Your task to perform on an android device: Open internet settings Image 0: 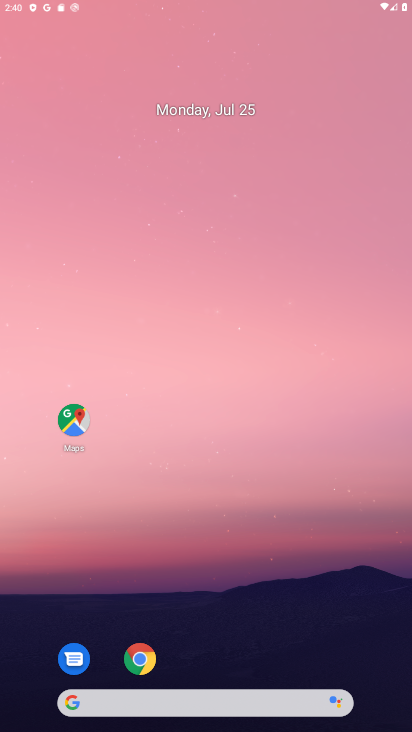
Step 0: drag from (225, 692) to (212, 115)
Your task to perform on an android device: Open internet settings Image 1: 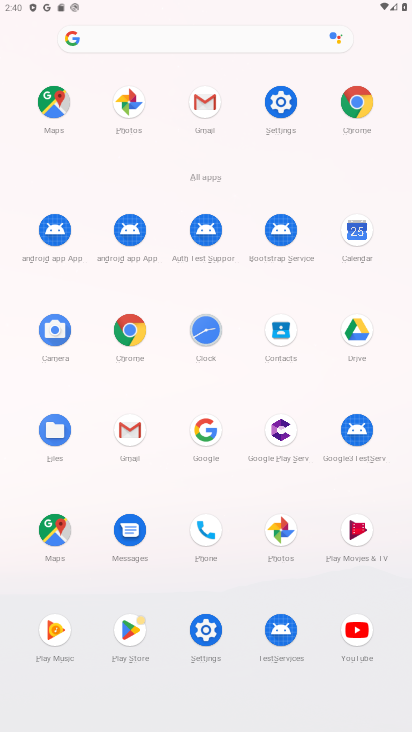
Step 1: click (282, 117)
Your task to perform on an android device: Open internet settings Image 2: 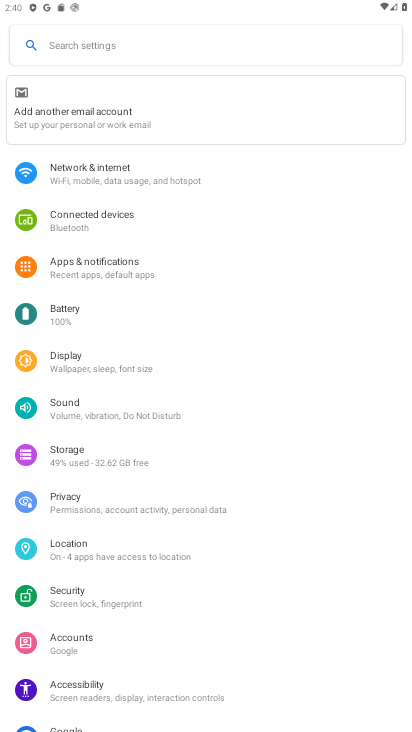
Step 2: click (109, 161)
Your task to perform on an android device: Open internet settings Image 3: 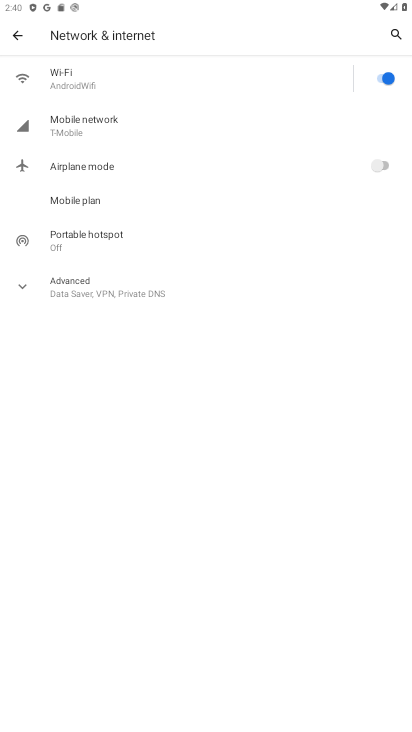
Step 3: click (108, 120)
Your task to perform on an android device: Open internet settings Image 4: 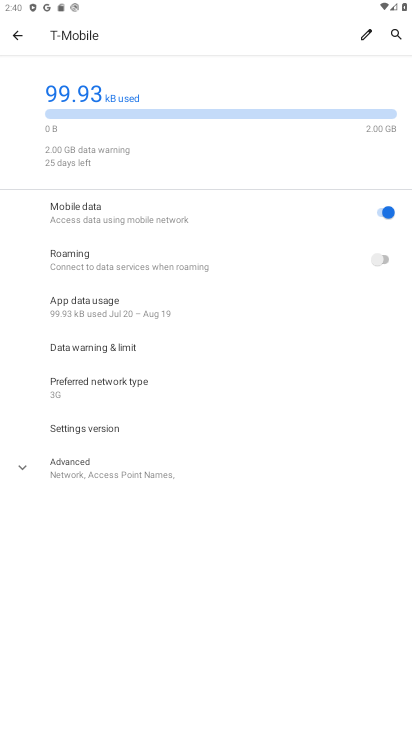
Step 4: task complete